Your task to perform on an android device: open sync settings in chrome Image 0: 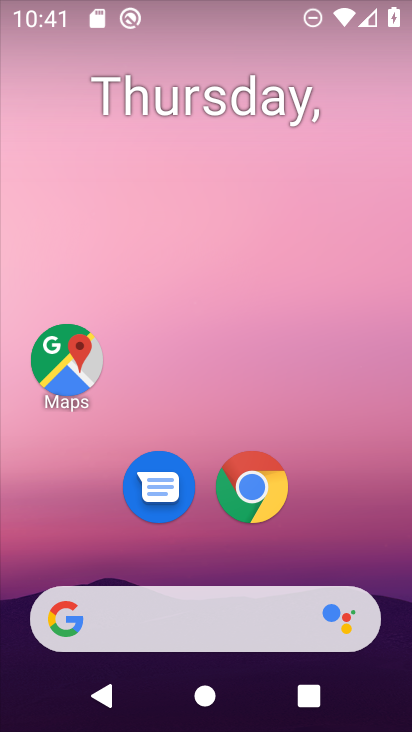
Step 0: click (269, 490)
Your task to perform on an android device: open sync settings in chrome Image 1: 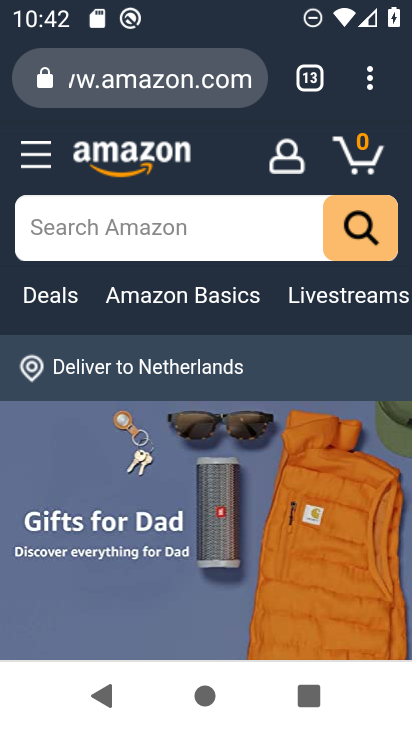
Step 1: click (369, 84)
Your task to perform on an android device: open sync settings in chrome Image 2: 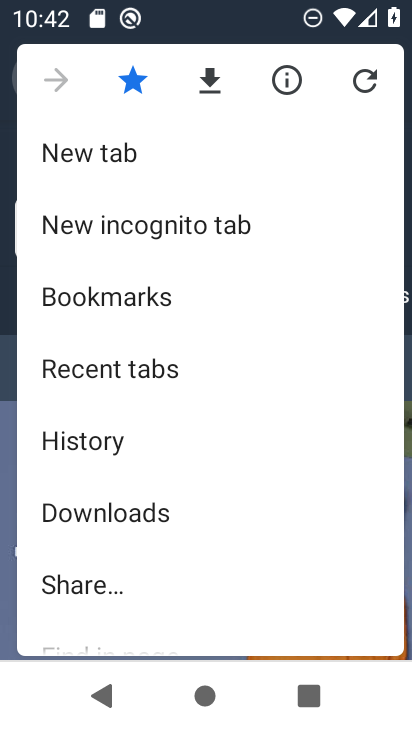
Step 2: drag from (147, 572) to (148, 118)
Your task to perform on an android device: open sync settings in chrome Image 3: 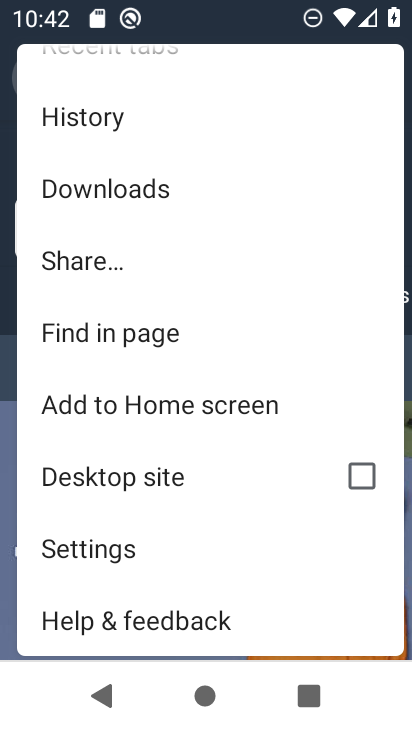
Step 3: click (87, 550)
Your task to perform on an android device: open sync settings in chrome Image 4: 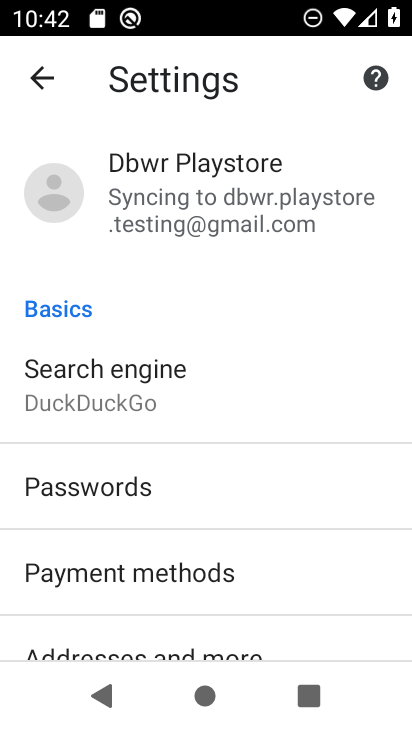
Step 4: drag from (115, 595) to (197, 135)
Your task to perform on an android device: open sync settings in chrome Image 5: 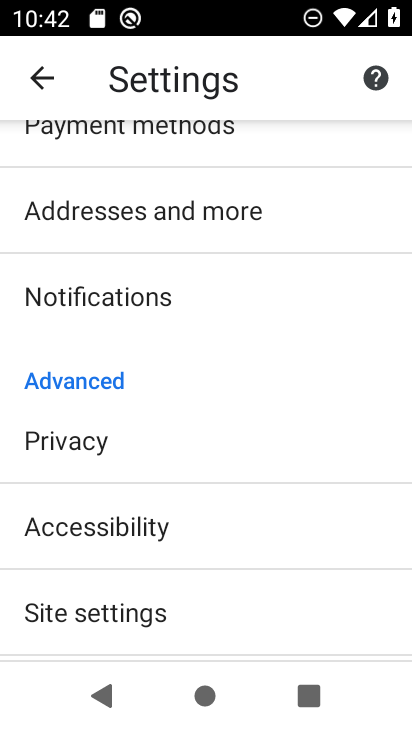
Step 5: click (118, 618)
Your task to perform on an android device: open sync settings in chrome Image 6: 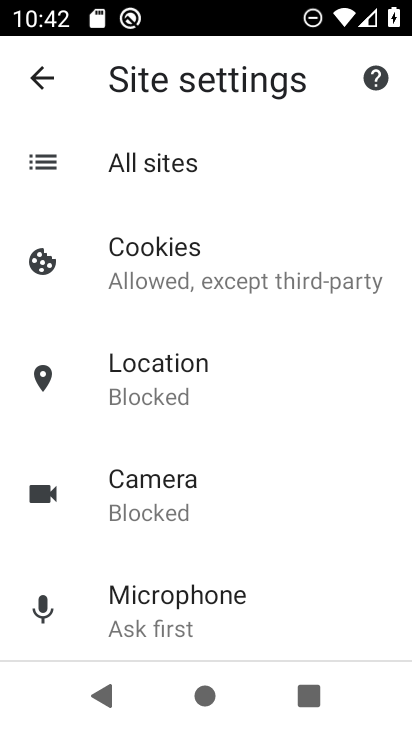
Step 6: drag from (141, 619) to (206, 247)
Your task to perform on an android device: open sync settings in chrome Image 7: 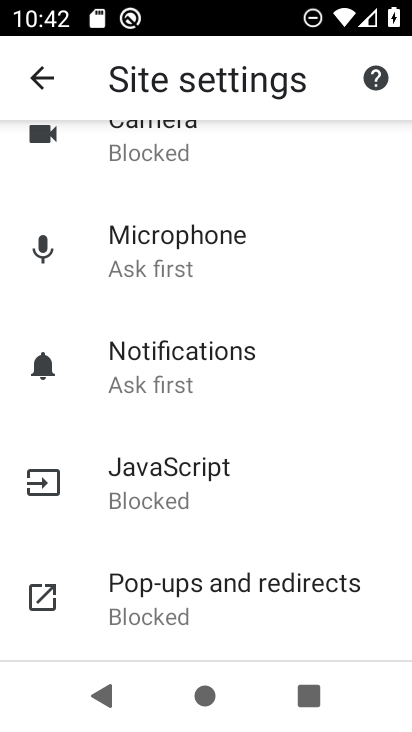
Step 7: drag from (179, 566) to (220, 320)
Your task to perform on an android device: open sync settings in chrome Image 8: 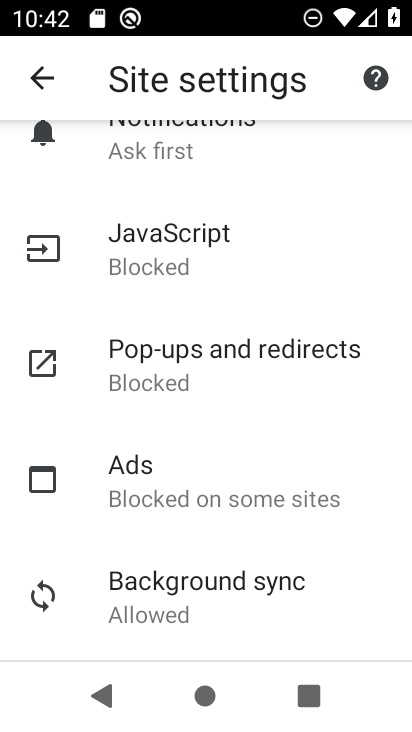
Step 8: click (176, 605)
Your task to perform on an android device: open sync settings in chrome Image 9: 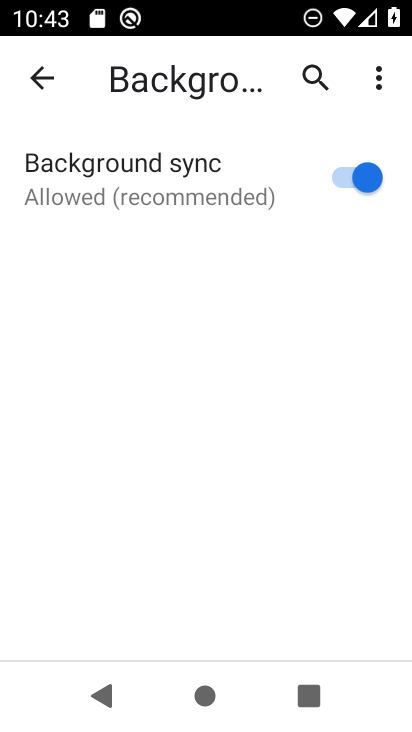
Step 9: task complete